Your task to perform on an android device: turn on bluetooth scan Image 0: 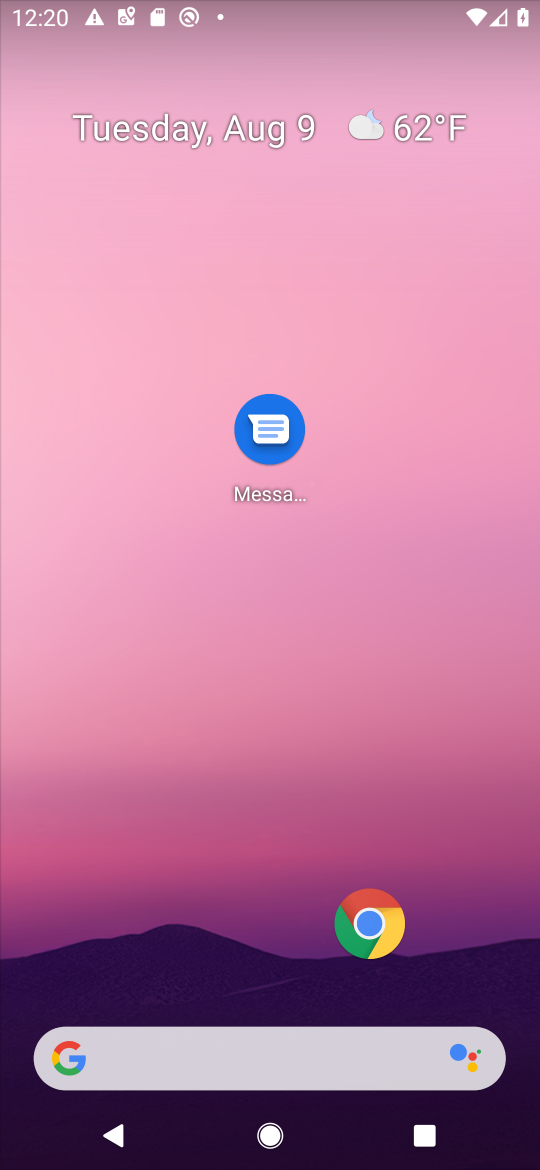
Step 0: drag from (46, 1110) to (265, 391)
Your task to perform on an android device: turn on bluetooth scan Image 1: 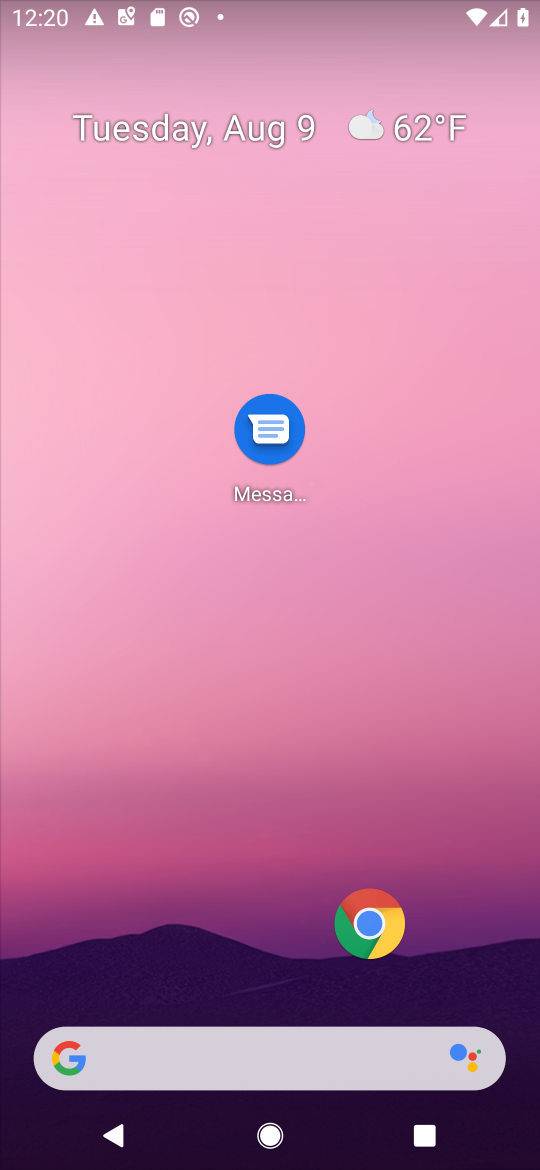
Step 1: drag from (43, 1100) to (173, 255)
Your task to perform on an android device: turn on bluetooth scan Image 2: 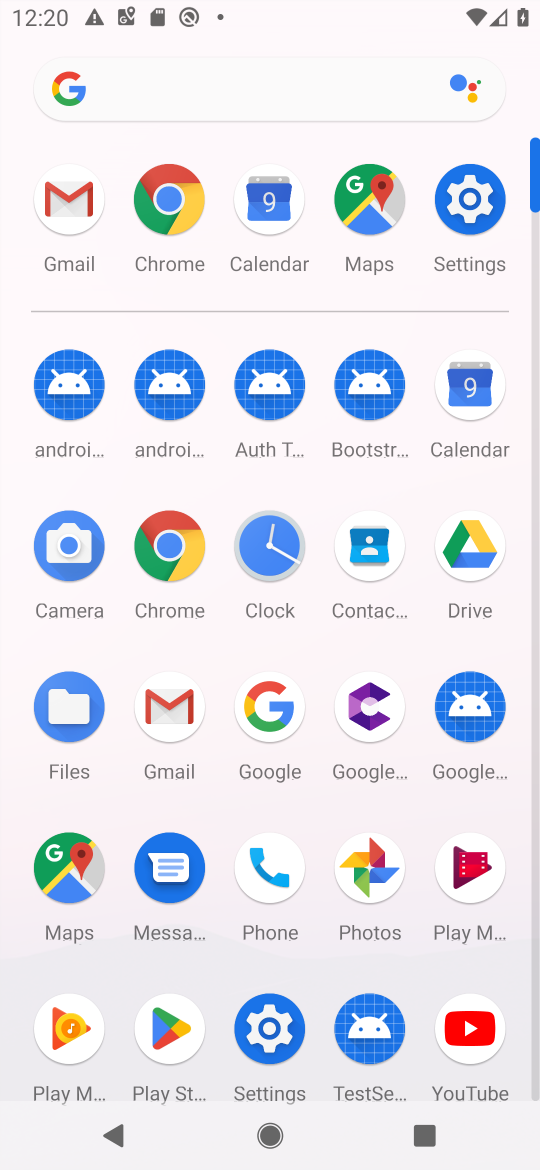
Step 2: click (471, 202)
Your task to perform on an android device: turn on bluetooth scan Image 3: 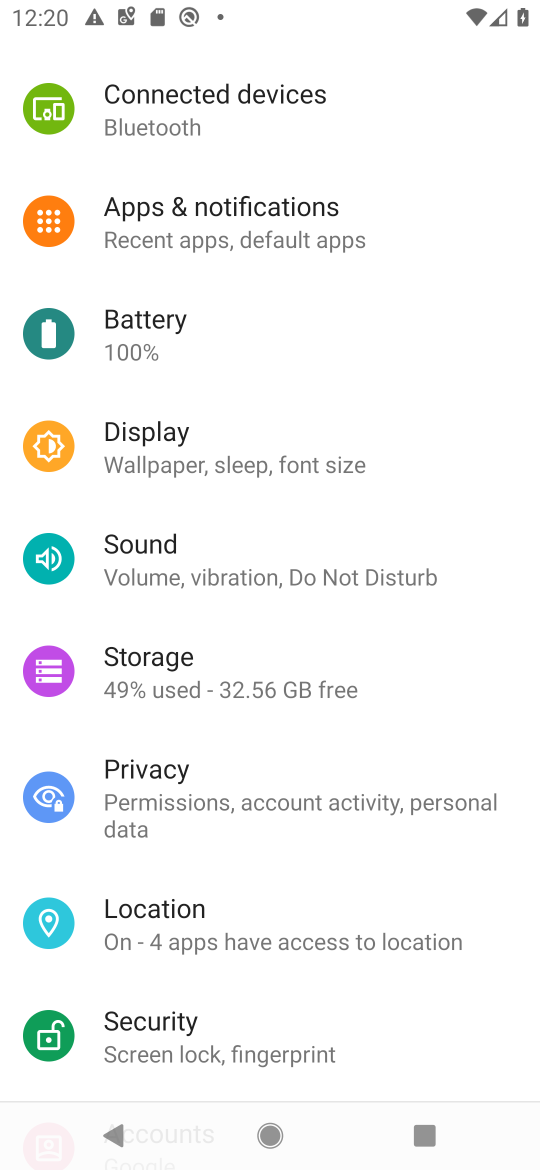
Step 3: click (243, 100)
Your task to perform on an android device: turn on bluetooth scan Image 4: 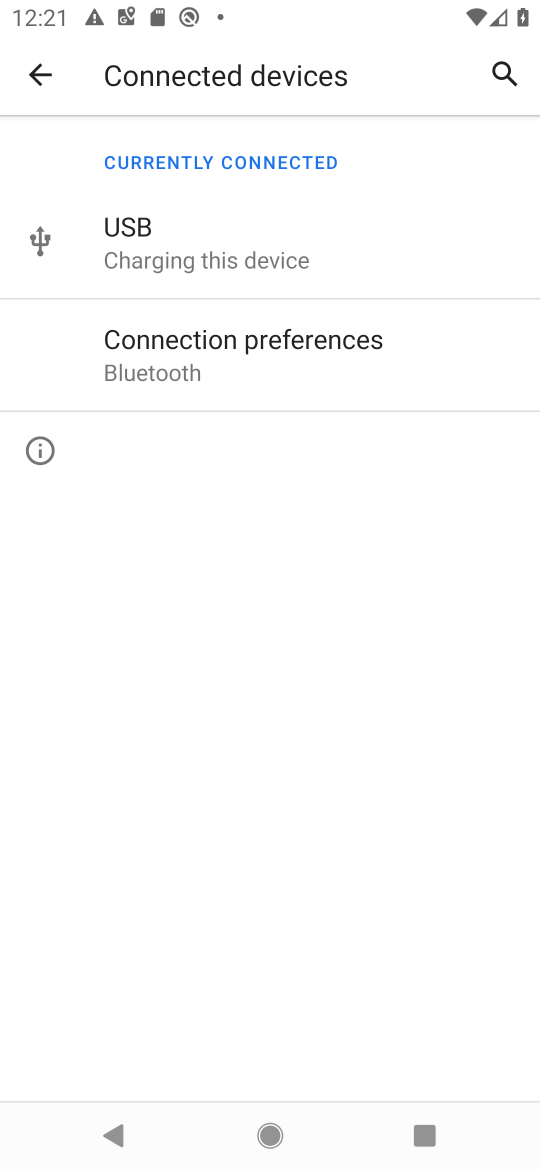
Step 4: click (220, 386)
Your task to perform on an android device: turn on bluetooth scan Image 5: 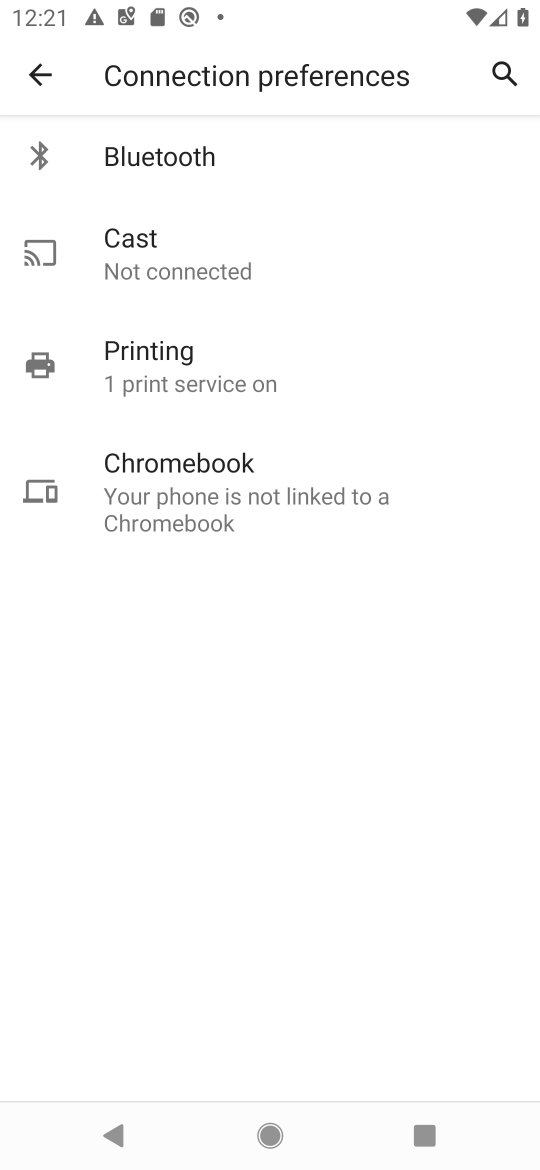
Step 5: click (144, 144)
Your task to perform on an android device: turn on bluetooth scan Image 6: 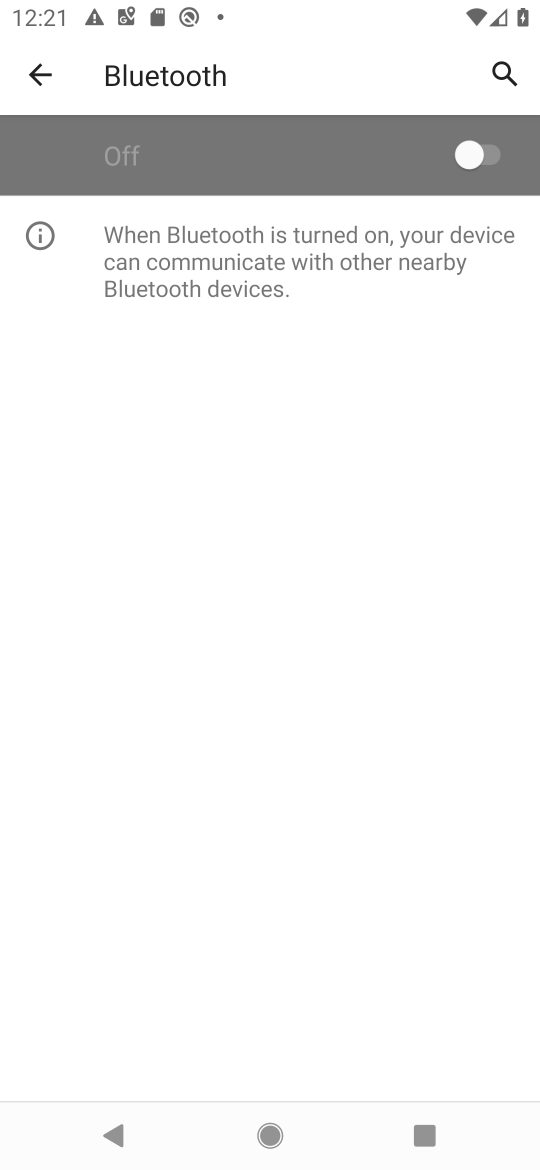
Step 6: task complete